Your task to perform on an android device: choose inbox layout in the gmail app Image 0: 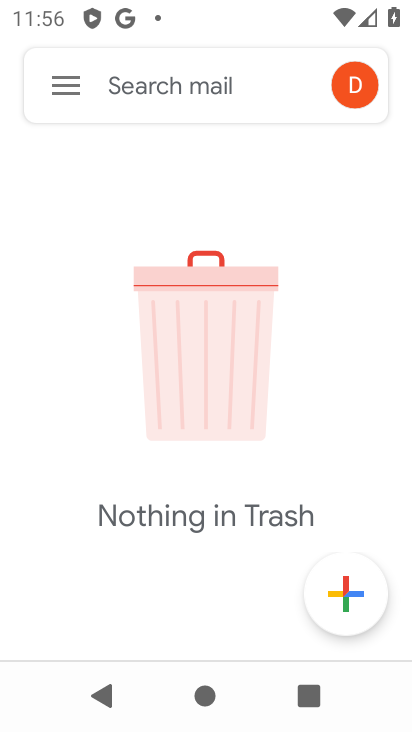
Step 0: click (68, 79)
Your task to perform on an android device: choose inbox layout in the gmail app Image 1: 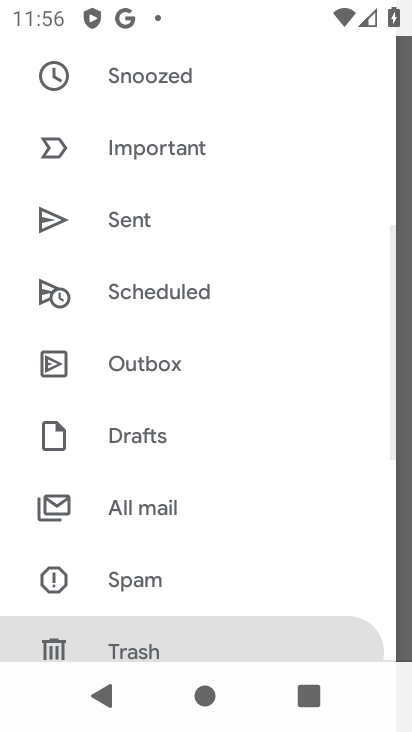
Step 1: drag from (288, 636) to (259, 174)
Your task to perform on an android device: choose inbox layout in the gmail app Image 2: 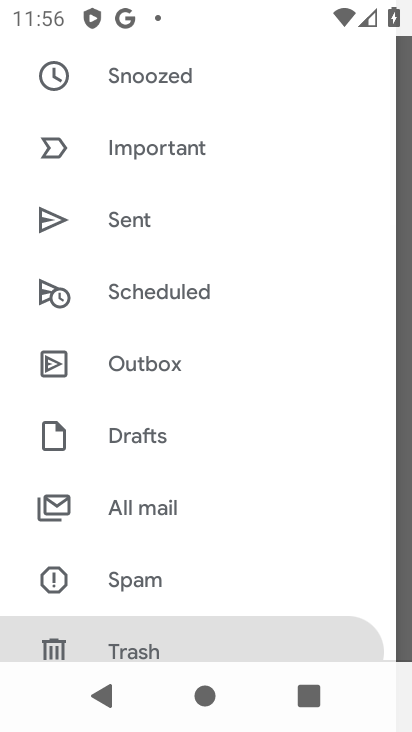
Step 2: drag from (198, 628) to (247, 271)
Your task to perform on an android device: choose inbox layout in the gmail app Image 3: 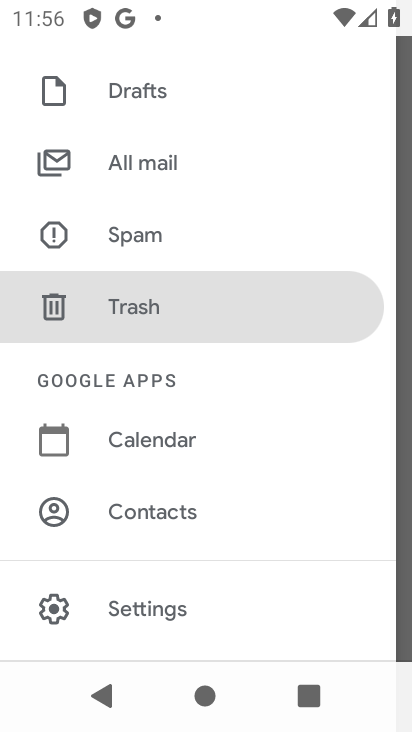
Step 3: click (155, 609)
Your task to perform on an android device: choose inbox layout in the gmail app Image 4: 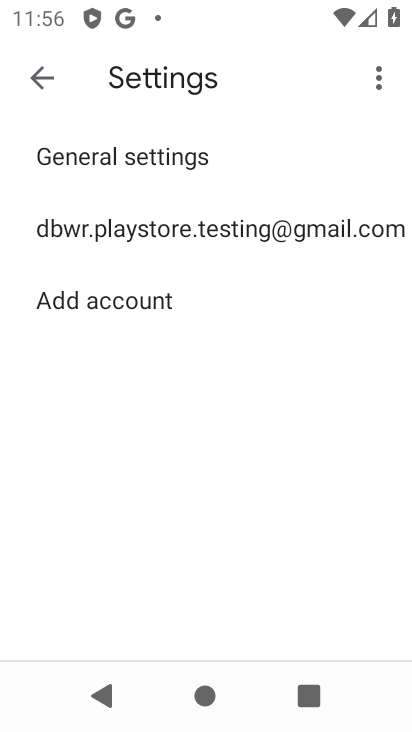
Step 4: click (219, 229)
Your task to perform on an android device: choose inbox layout in the gmail app Image 5: 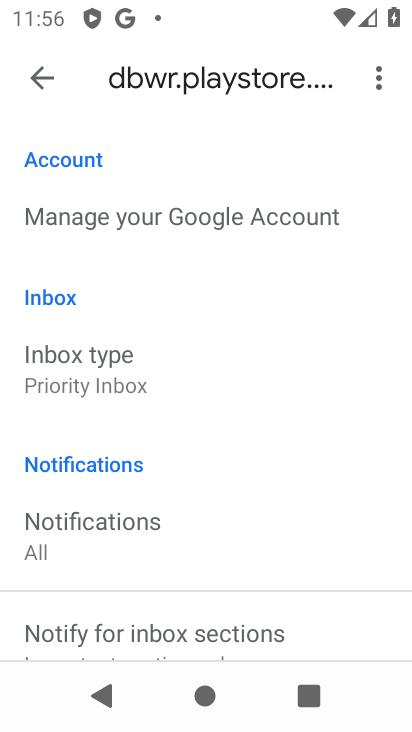
Step 5: click (36, 382)
Your task to perform on an android device: choose inbox layout in the gmail app Image 6: 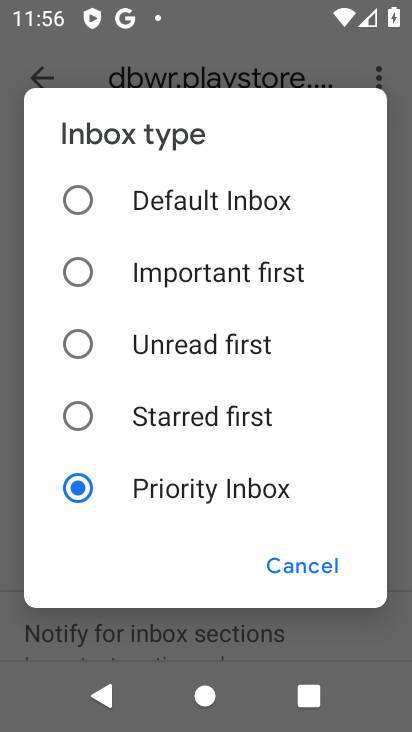
Step 6: click (207, 211)
Your task to perform on an android device: choose inbox layout in the gmail app Image 7: 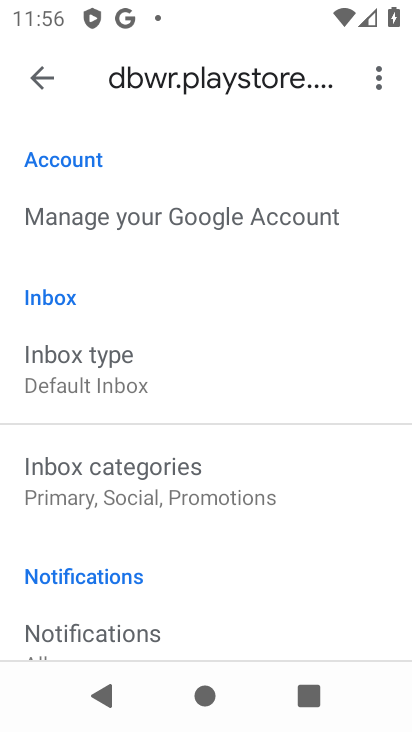
Step 7: task complete